Your task to perform on an android device: change notifications settings Image 0: 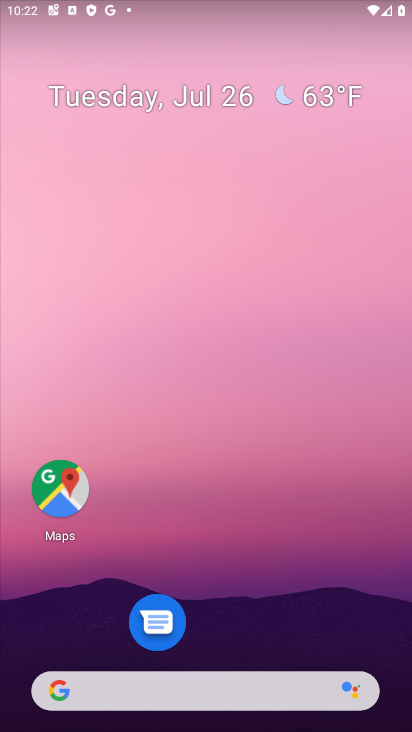
Step 0: drag from (342, 636) to (277, 155)
Your task to perform on an android device: change notifications settings Image 1: 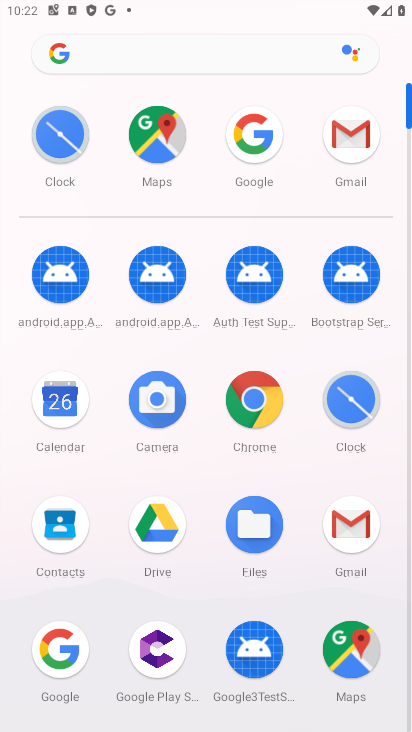
Step 1: drag from (365, 602) to (322, 159)
Your task to perform on an android device: change notifications settings Image 2: 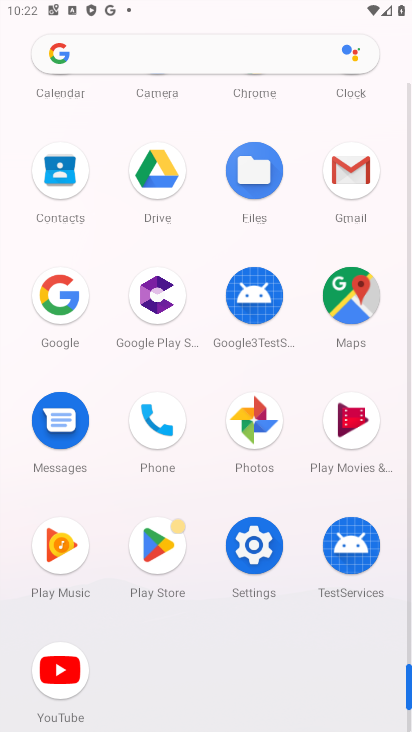
Step 2: click (244, 526)
Your task to perform on an android device: change notifications settings Image 3: 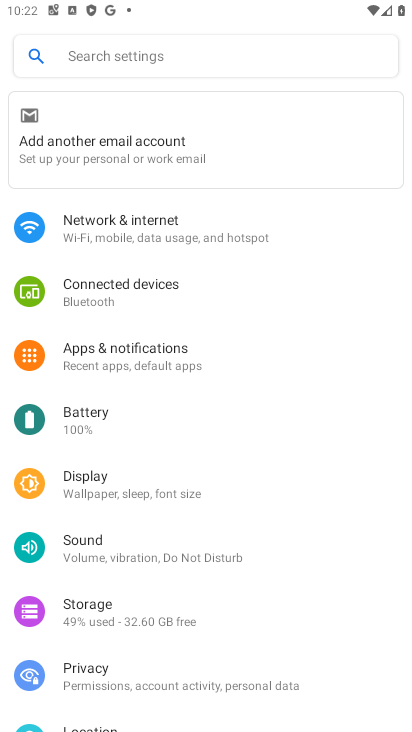
Step 3: click (164, 361)
Your task to perform on an android device: change notifications settings Image 4: 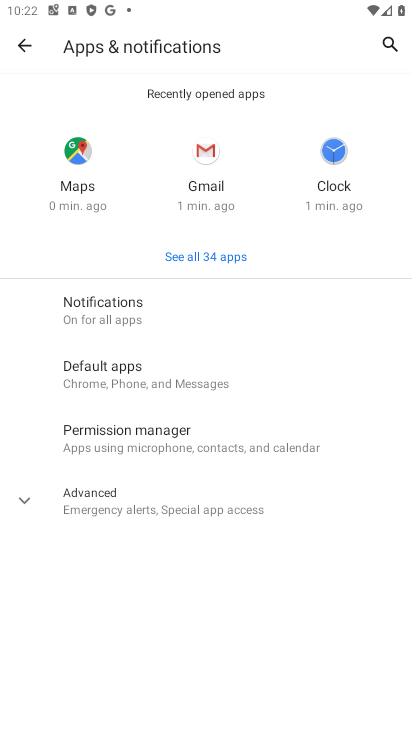
Step 4: click (102, 304)
Your task to perform on an android device: change notifications settings Image 5: 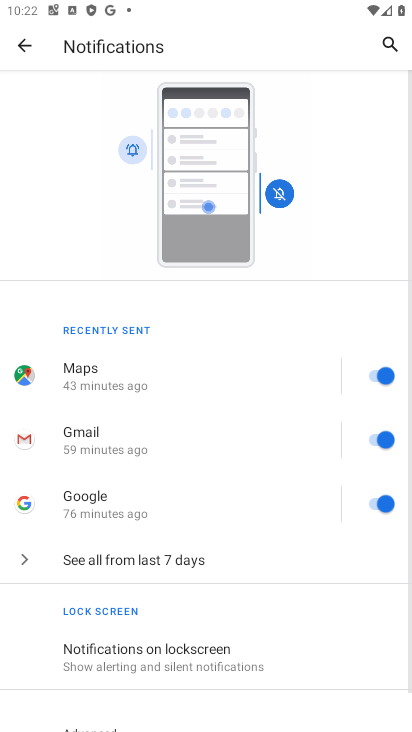
Step 5: task complete